Your task to perform on an android device: toggle notifications settings in the gmail app Image 0: 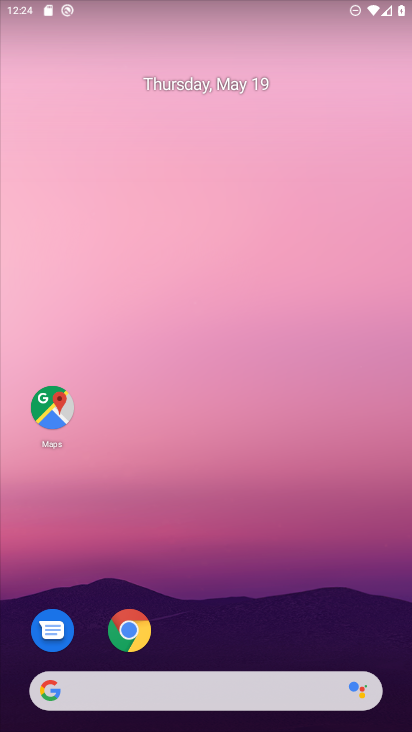
Step 0: drag from (232, 620) to (273, 65)
Your task to perform on an android device: toggle notifications settings in the gmail app Image 1: 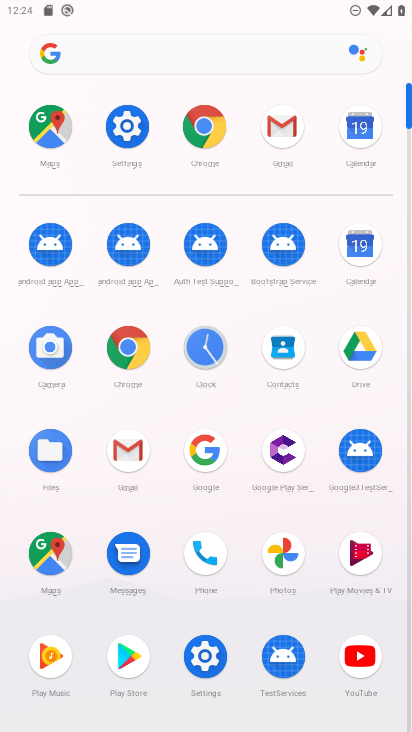
Step 1: click (141, 453)
Your task to perform on an android device: toggle notifications settings in the gmail app Image 2: 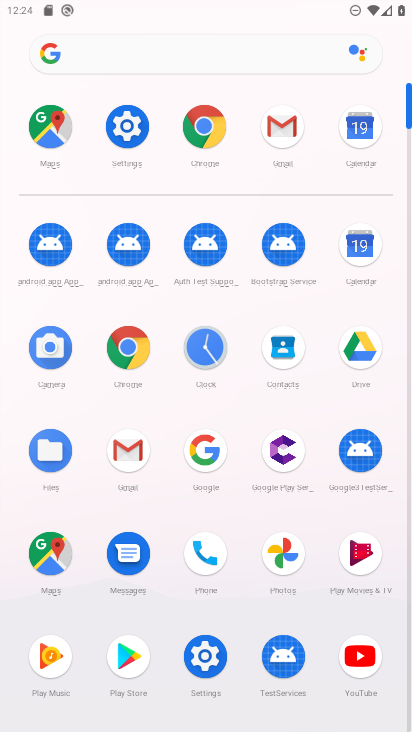
Step 2: click (141, 453)
Your task to perform on an android device: toggle notifications settings in the gmail app Image 3: 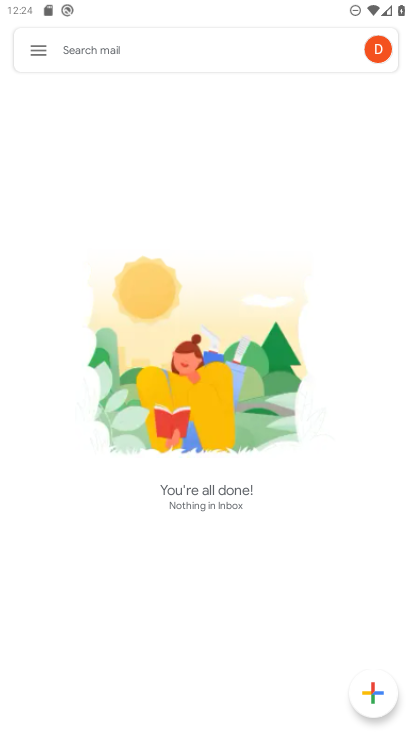
Step 3: click (35, 49)
Your task to perform on an android device: toggle notifications settings in the gmail app Image 4: 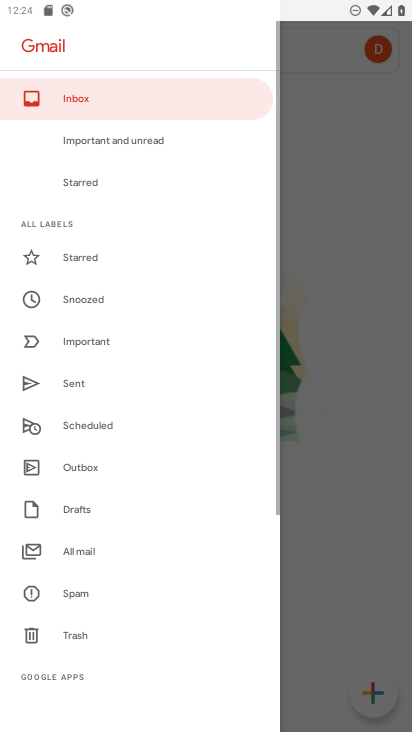
Step 4: drag from (110, 482) to (216, 25)
Your task to perform on an android device: toggle notifications settings in the gmail app Image 5: 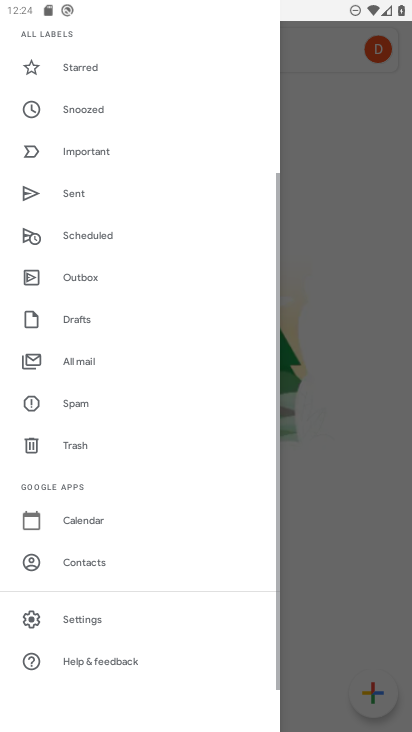
Step 5: click (97, 622)
Your task to perform on an android device: toggle notifications settings in the gmail app Image 6: 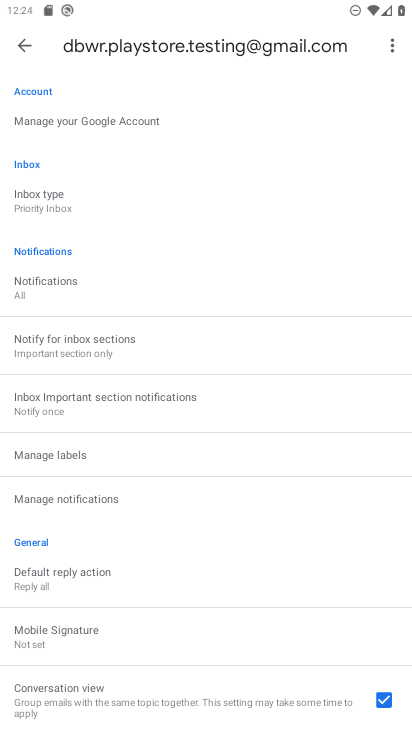
Step 6: click (79, 486)
Your task to perform on an android device: toggle notifications settings in the gmail app Image 7: 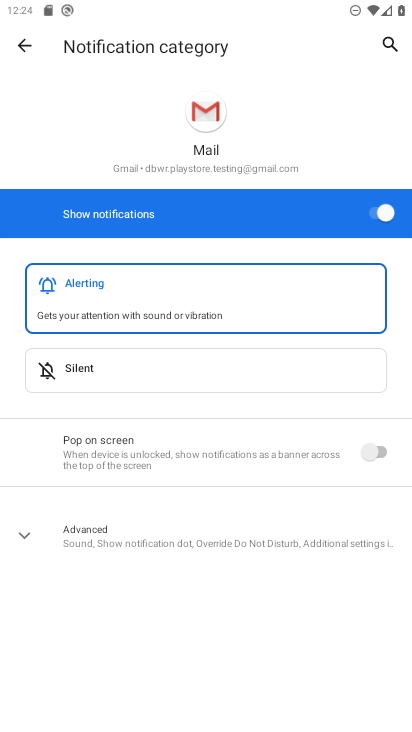
Step 7: click (366, 211)
Your task to perform on an android device: toggle notifications settings in the gmail app Image 8: 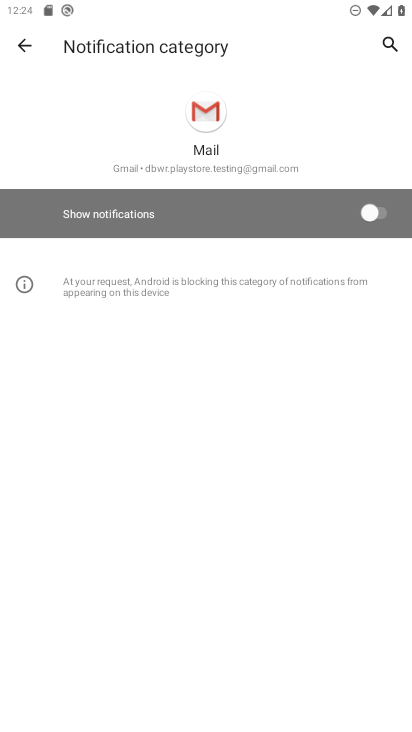
Step 8: task complete